Your task to perform on an android device: turn off wifi Image 0: 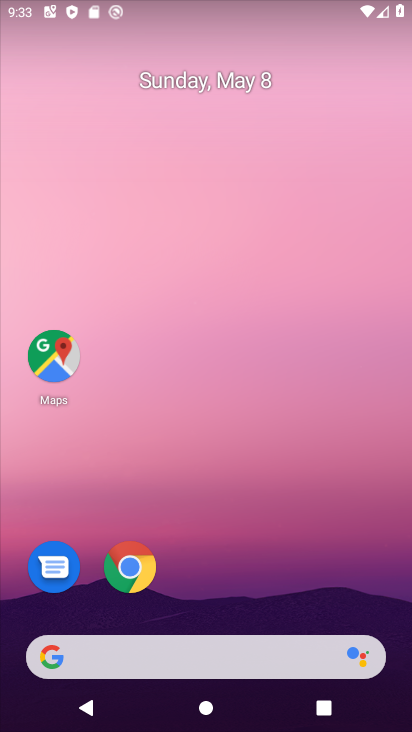
Step 0: drag from (284, 597) to (187, 142)
Your task to perform on an android device: turn off wifi Image 1: 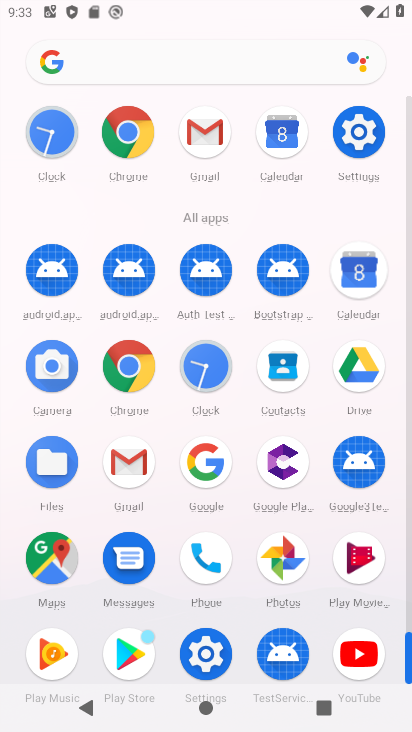
Step 1: click (378, 124)
Your task to perform on an android device: turn off wifi Image 2: 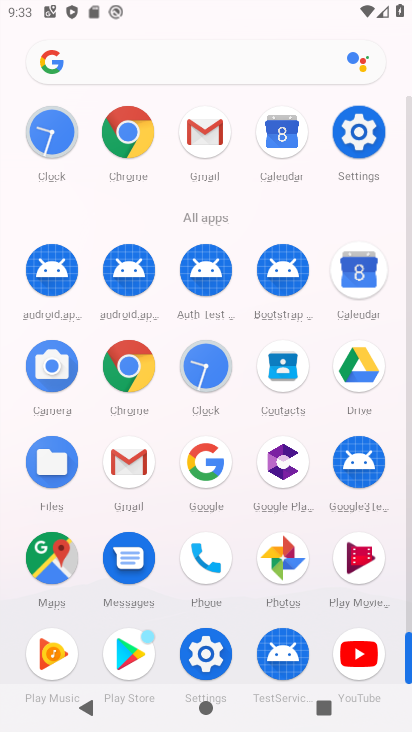
Step 2: click (370, 131)
Your task to perform on an android device: turn off wifi Image 3: 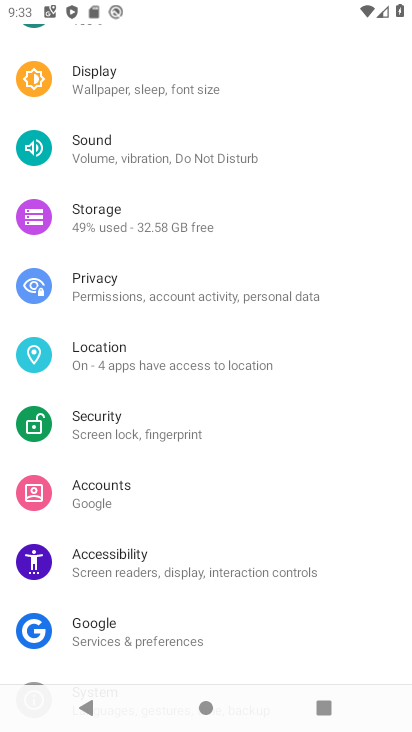
Step 3: drag from (159, 181) to (179, 465)
Your task to perform on an android device: turn off wifi Image 4: 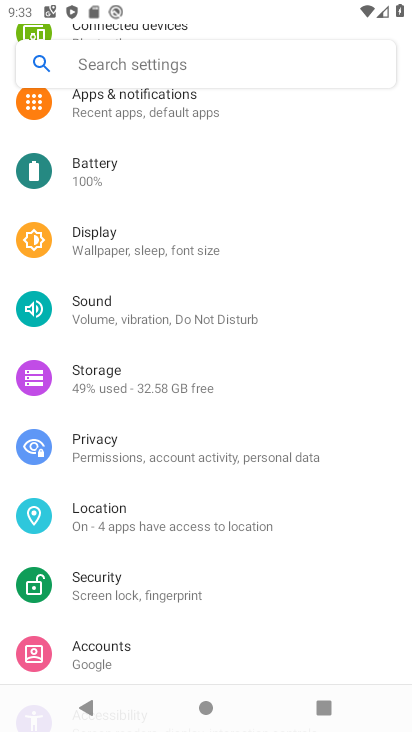
Step 4: drag from (133, 134) to (196, 554)
Your task to perform on an android device: turn off wifi Image 5: 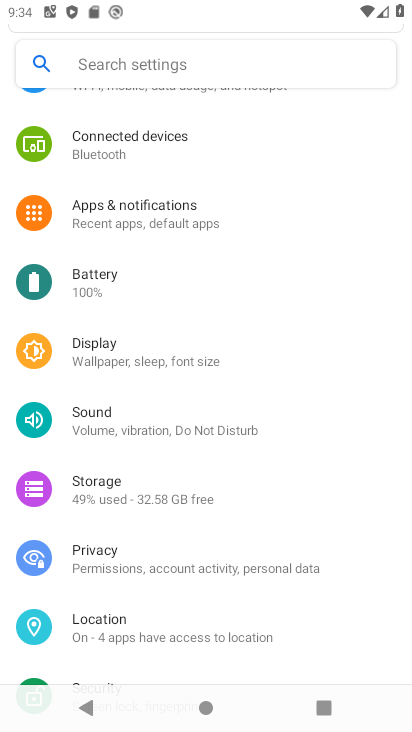
Step 5: click (265, 657)
Your task to perform on an android device: turn off wifi Image 6: 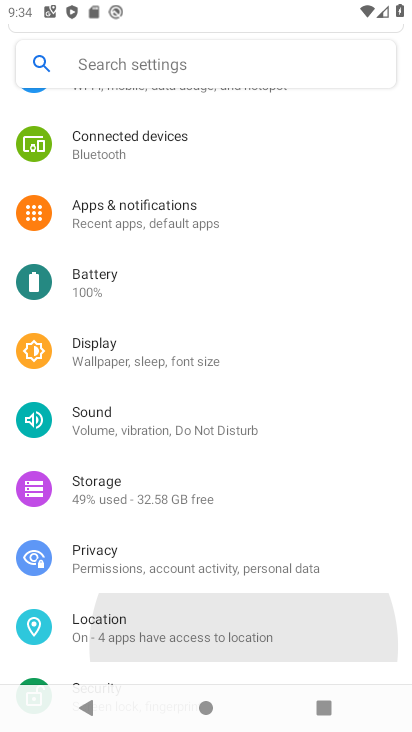
Step 6: drag from (192, 142) to (229, 644)
Your task to perform on an android device: turn off wifi Image 7: 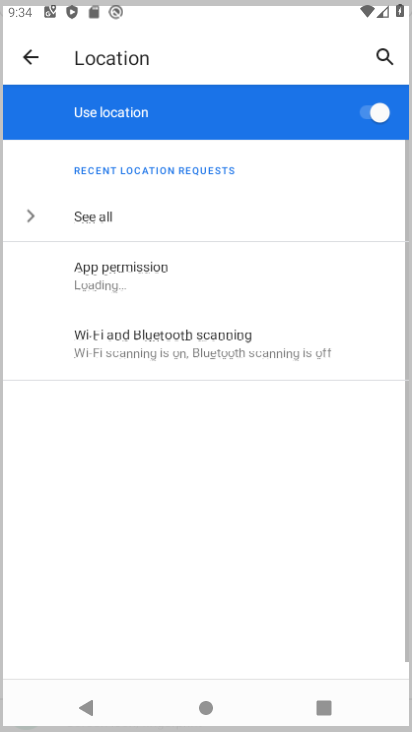
Step 7: drag from (167, 293) to (231, 684)
Your task to perform on an android device: turn off wifi Image 8: 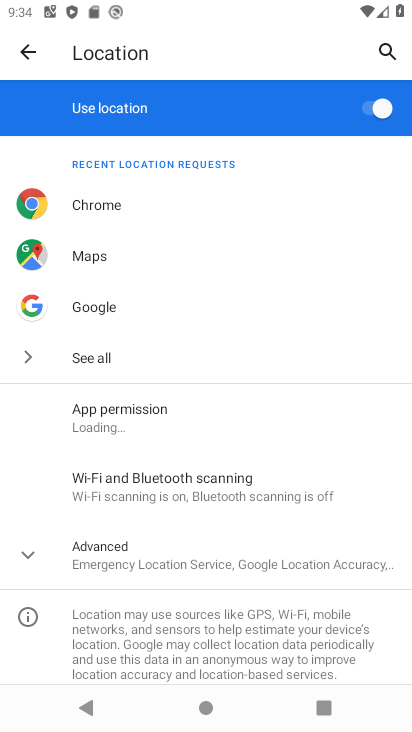
Step 8: click (29, 44)
Your task to perform on an android device: turn off wifi Image 9: 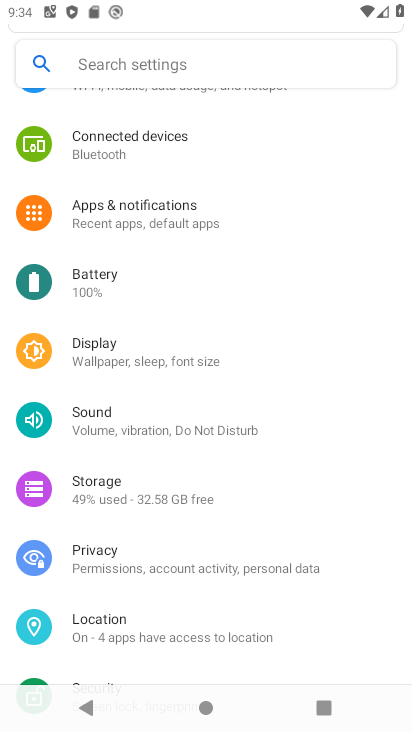
Step 9: drag from (137, 174) to (215, 610)
Your task to perform on an android device: turn off wifi Image 10: 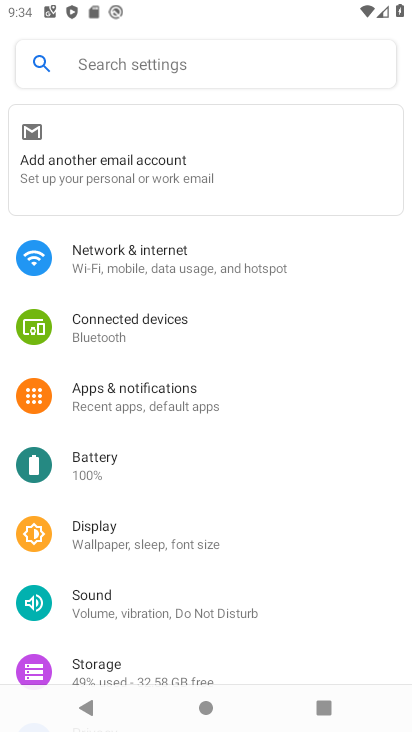
Step 10: click (139, 257)
Your task to perform on an android device: turn off wifi Image 11: 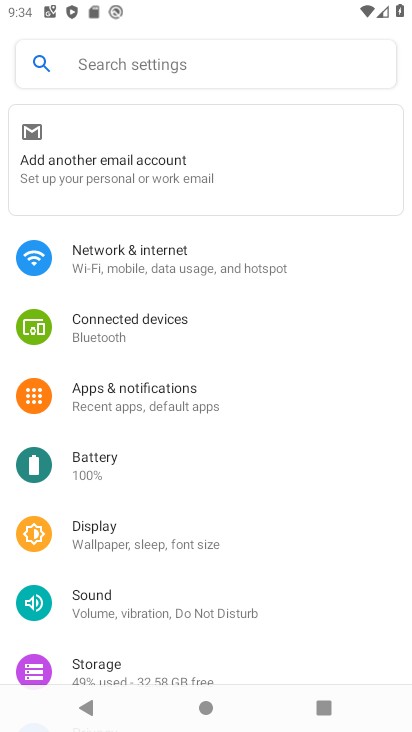
Step 11: click (142, 269)
Your task to perform on an android device: turn off wifi Image 12: 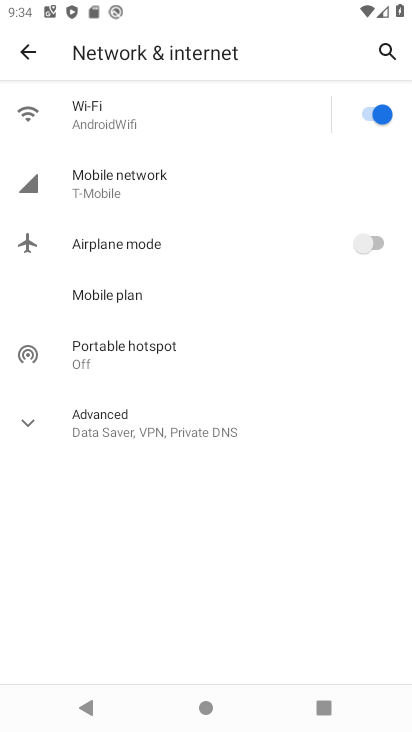
Step 12: task complete